Your task to perform on an android device: change notification settings in the gmail app Image 0: 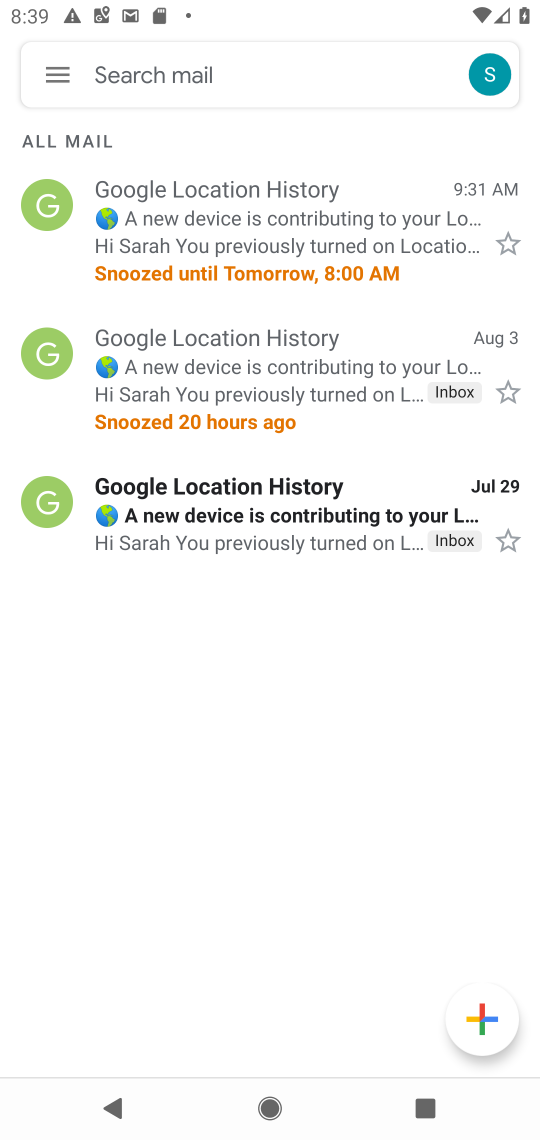
Step 0: click (65, 76)
Your task to perform on an android device: change notification settings in the gmail app Image 1: 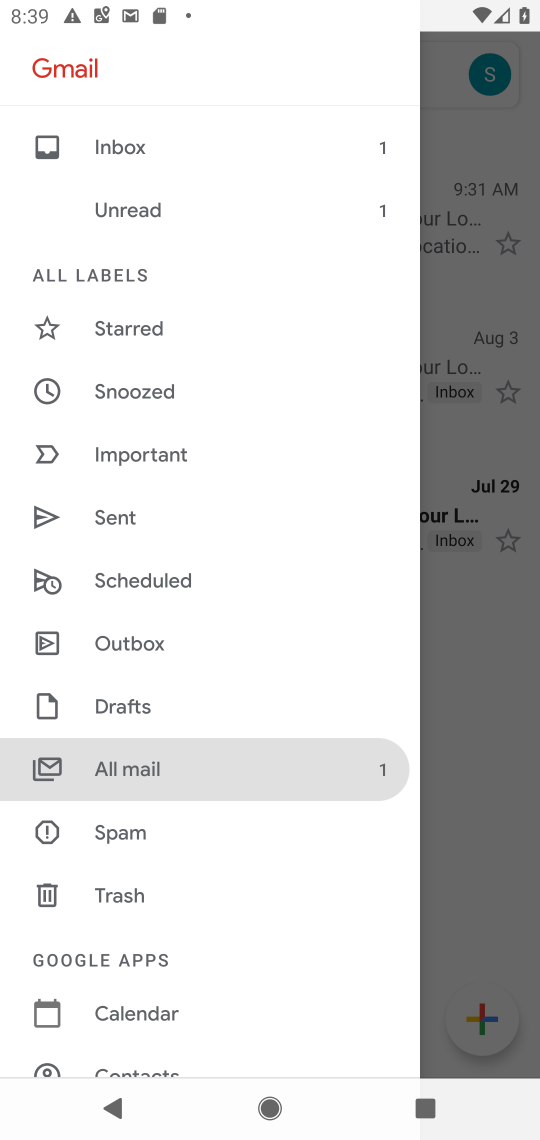
Step 1: drag from (246, 956) to (316, 190)
Your task to perform on an android device: change notification settings in the gmail app Image 2: 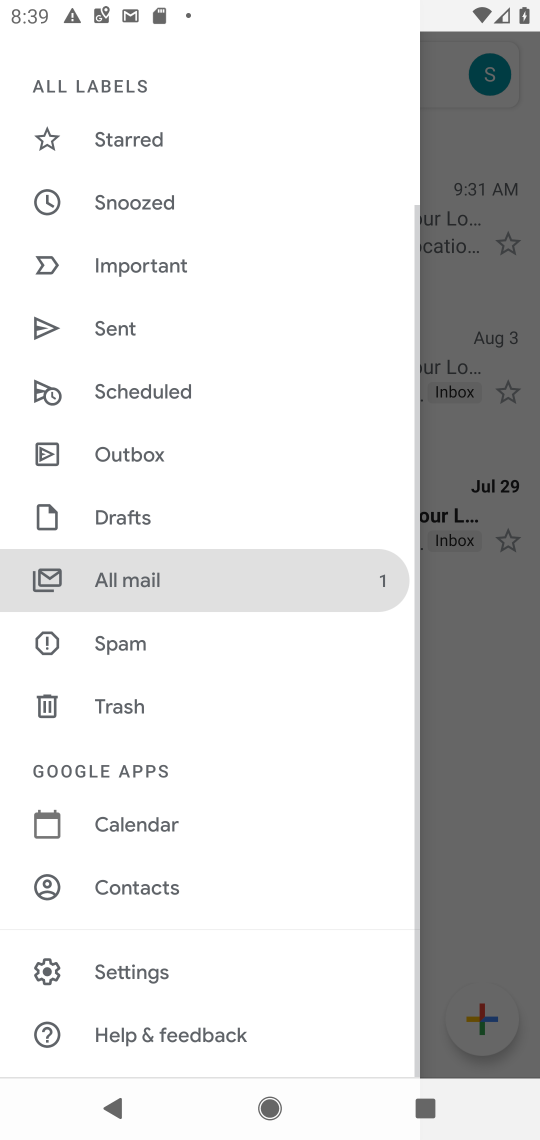
Step 2: click (172, 971)
Your task to perform on an android device: change notification settings in the gmail app Image 3: 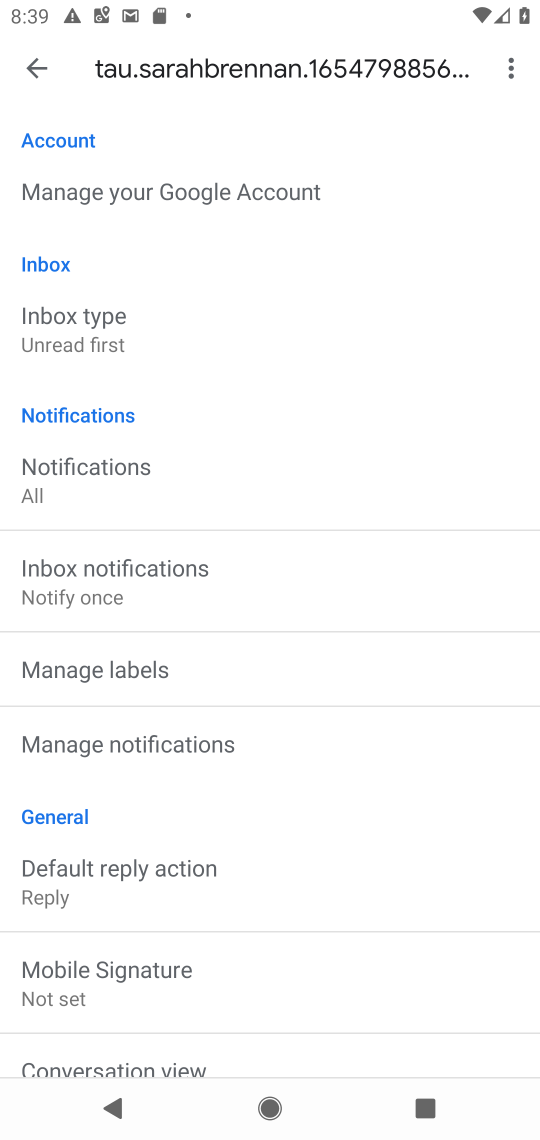
Step 3: click (92, 486)
Your task to perform on an android device: change notification settings in the gmail app Image 4: 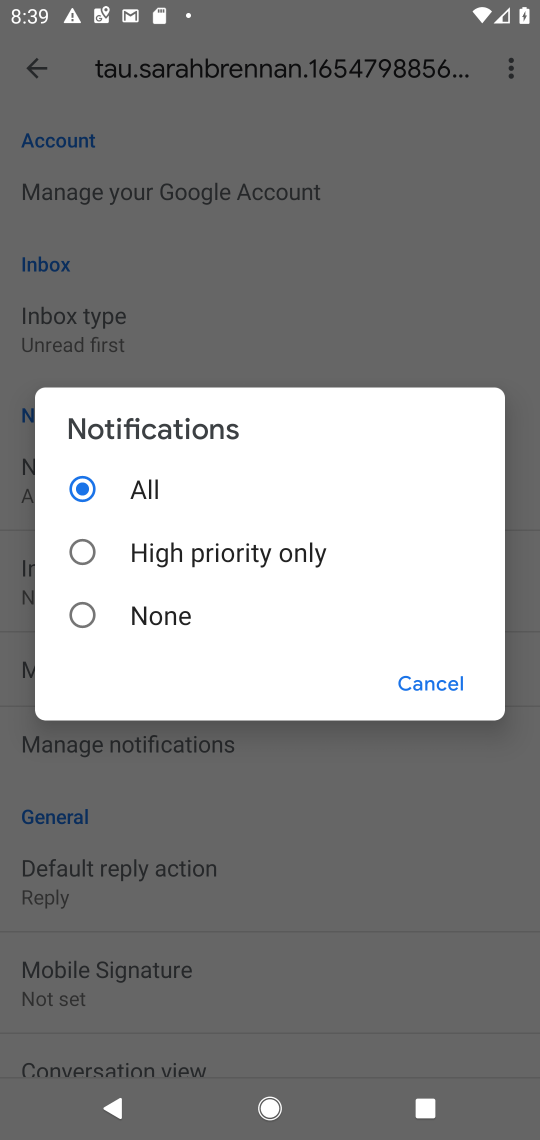
Step 4: click (89, 615)
Your task to perform on an android device: change notification settings in the gmail app Image 5: 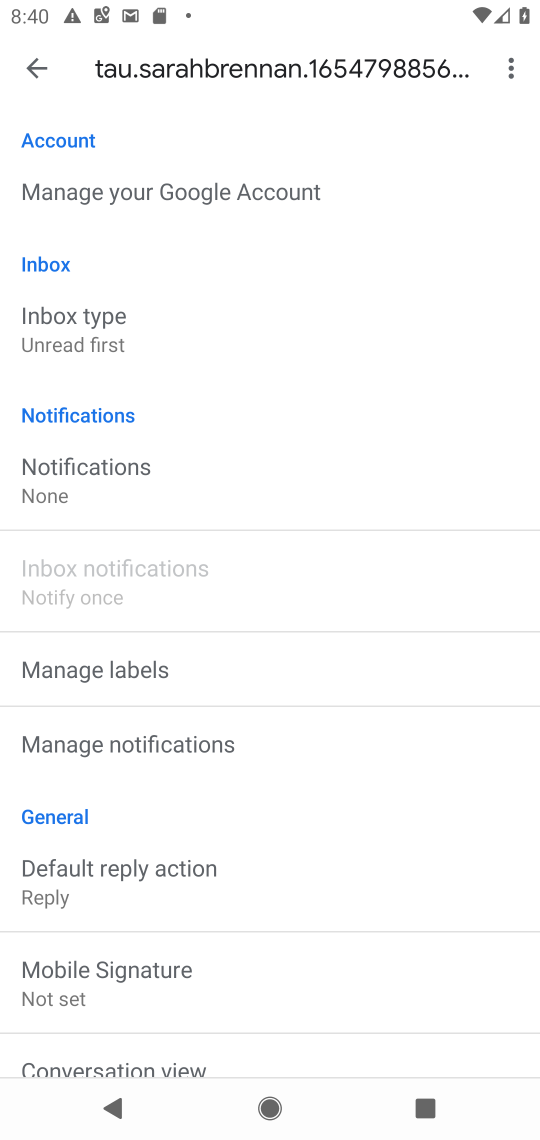
Step 5: task complete